Your task to perform on an android device: check data usage Image 0: 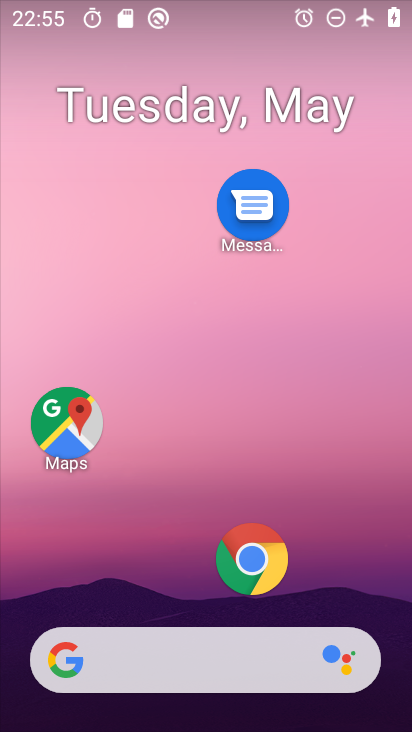
Step 0: drag from (193, 590) to (190, 175)
Your task to perform on an android device: check data usage Image 1: 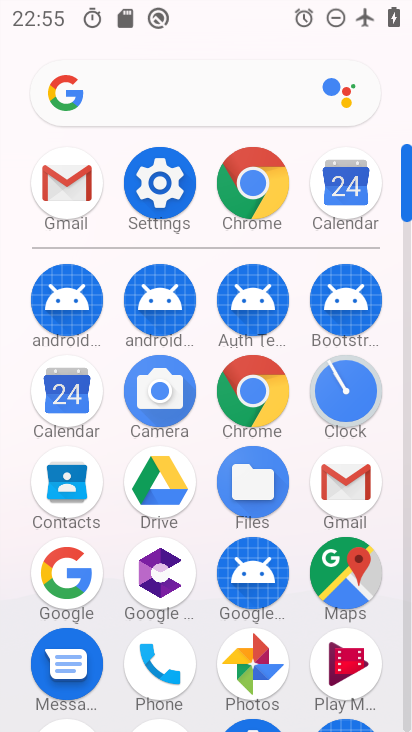
Step 1: click (171, 166)
Your task to perform on an android device: check data usage Image 2: 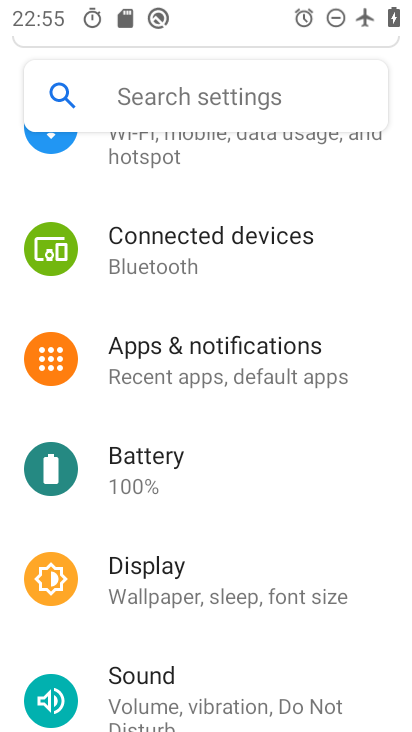
Step 2: drag from (168, 173) to (184, 505)
Your task to perform on an android device: check data usage Image 3: 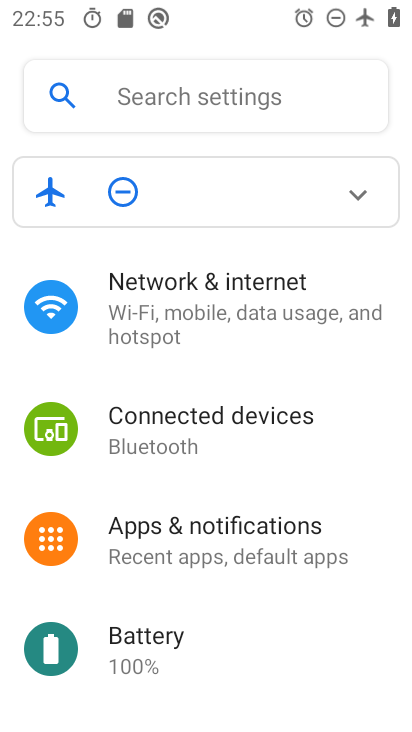
Step 3: click (189, 287)
Your task to perform on an android device: check data usage Image 4: 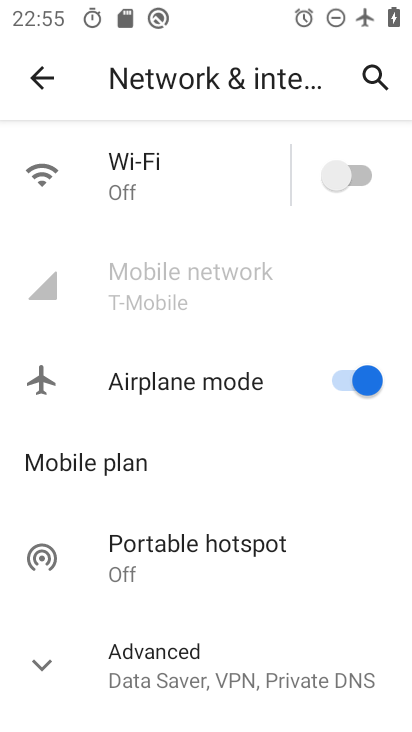
Step 4: click (189, 287)
Your task to perform on an android device: check data usage Image 5: 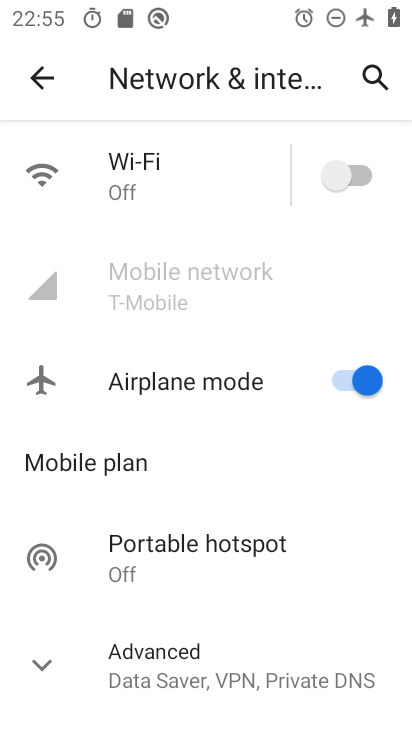
Step 5: task complete